Your task to perform on an android device: empty trash in the gmail app Image 0: 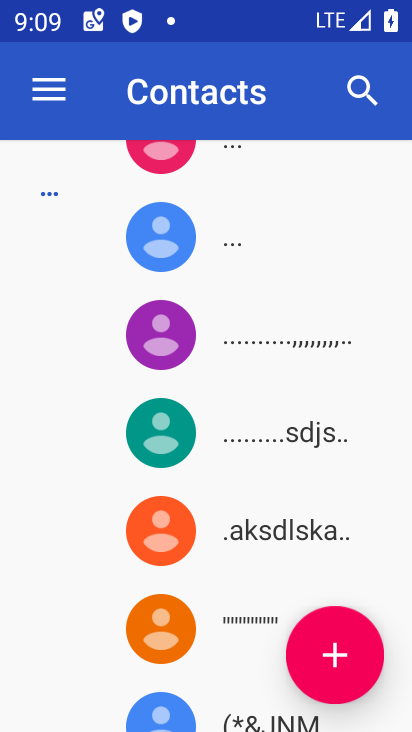
Step 0: press home button
Your task to perform on an android device: empty trash in the gmail app Image 1: 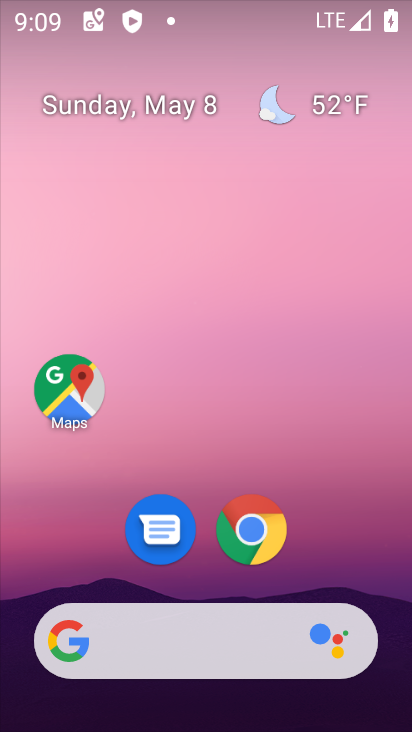
Step 1: drag from (375, 566) to (362, 139)
Your task to perform on an android device: empty trash in the gmail app Image 2: 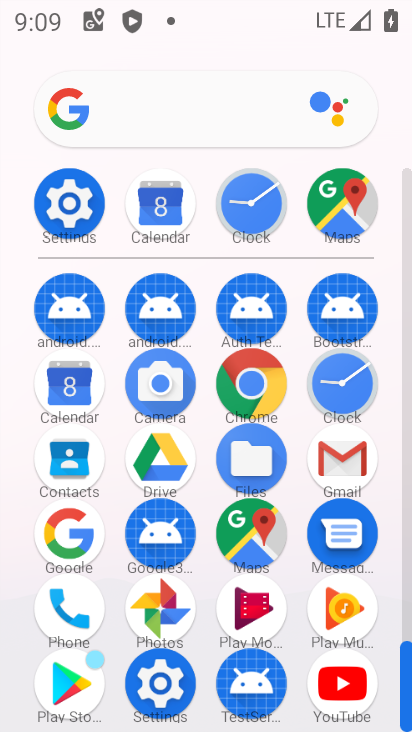
Step 2: click (362, 452)
Your task to perform on an android device: empty trash in the gmail app Image 3: 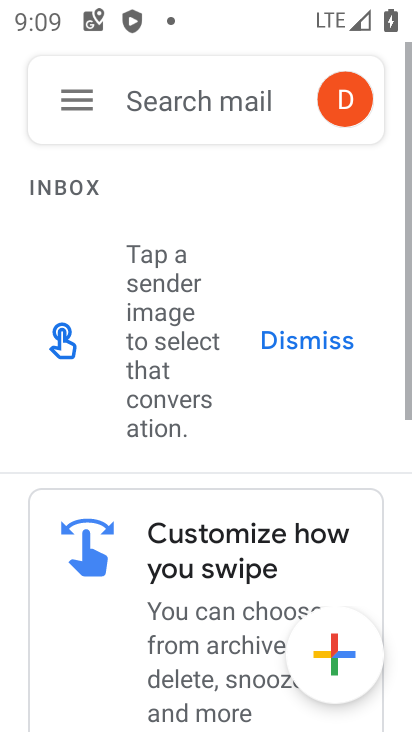
Step 3: drag from (385, 494) to (387, 197)
Your task to perform on an android device: empty trash in the gmail app Image 4: 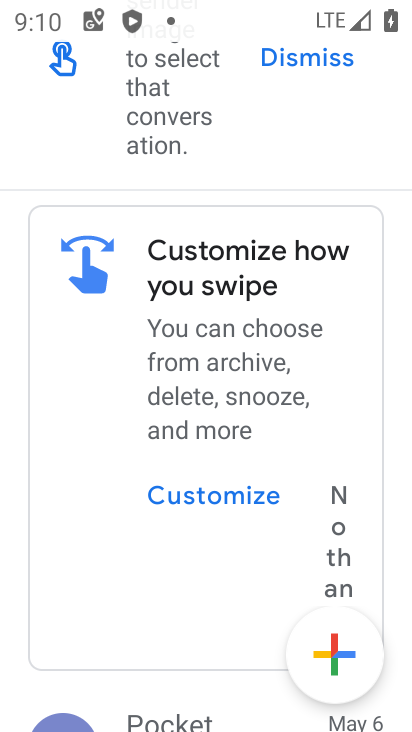
Step 4: drag from (394, 667) to (399, 370)
Your task to perform on an android device: empty trash in the gmail app Image 5: 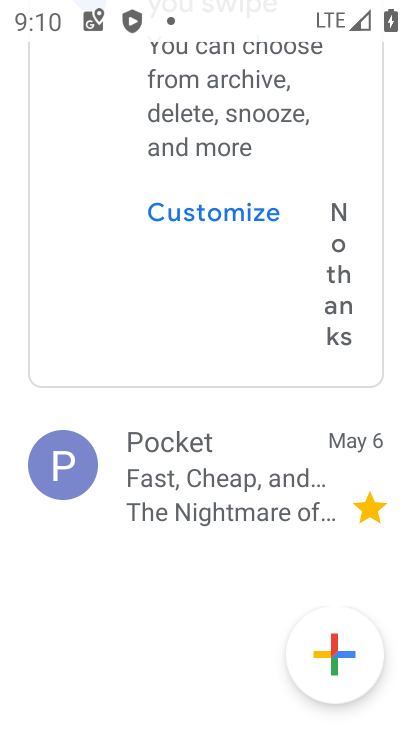
Step 5: drag from (11, 191) to (89, 626)
Your task to perform on an android device: empty trash in the gmail app Image 6: 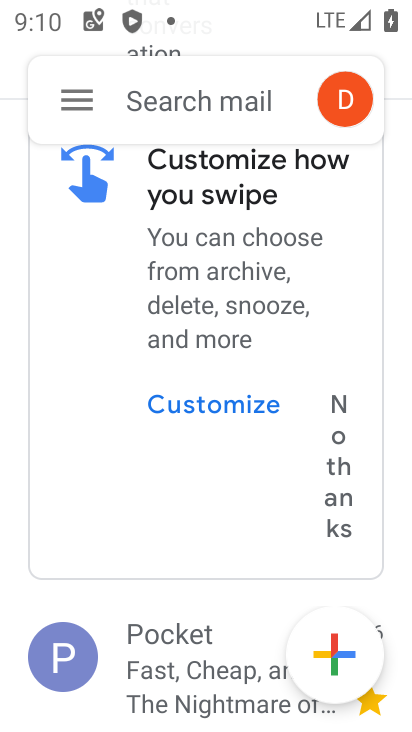
Step 6: click (81, 109)
Your task to perform on an android device: empty trash in the gmail app Image 7: 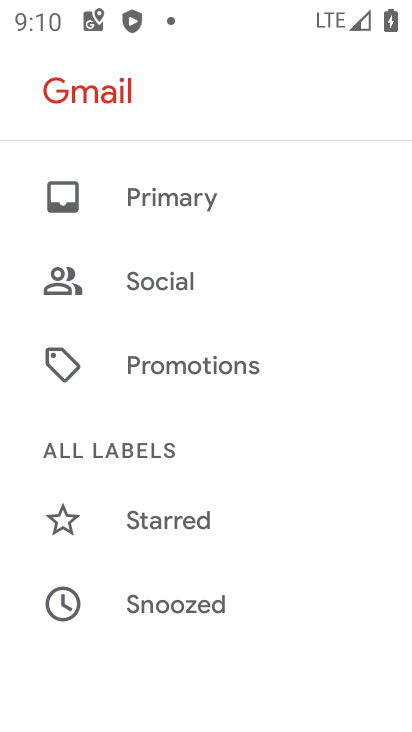
Step 7: drag from (238, 616) to (274, 240)
Your task to perform on an android device: empty trash in the gmail app Image 8: 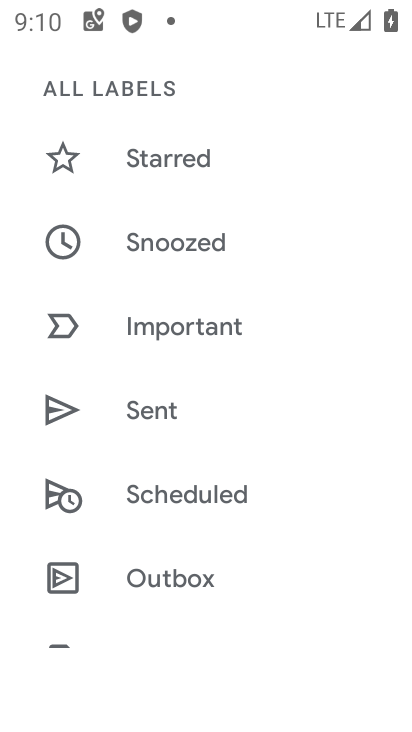
Step 8: drag from (240, 581) to (250, 265)
Your task to perform on an android device: empty trash in the gmail app Image 9: 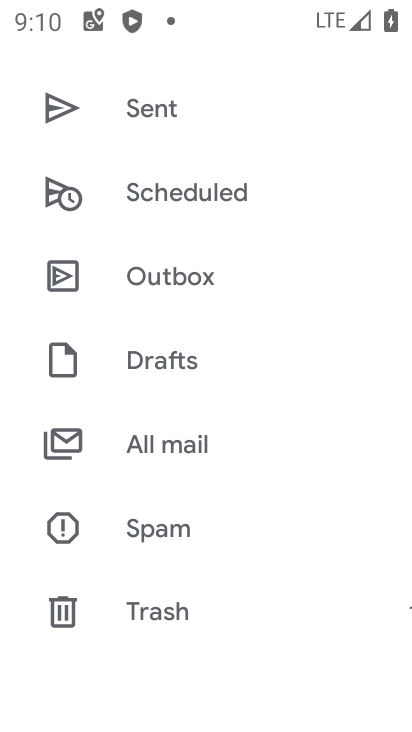
Step 9: click (176, 601)
Your task to perform on an android device: empty trash in the gmail app Image 10: 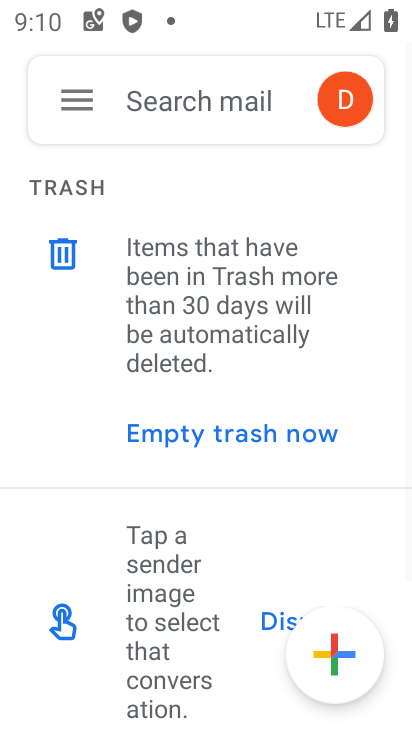
Step 10: drag from (241, 681) to (244, 261)
Your task to perform on an android device: empty trash in the gmail app Image 11: 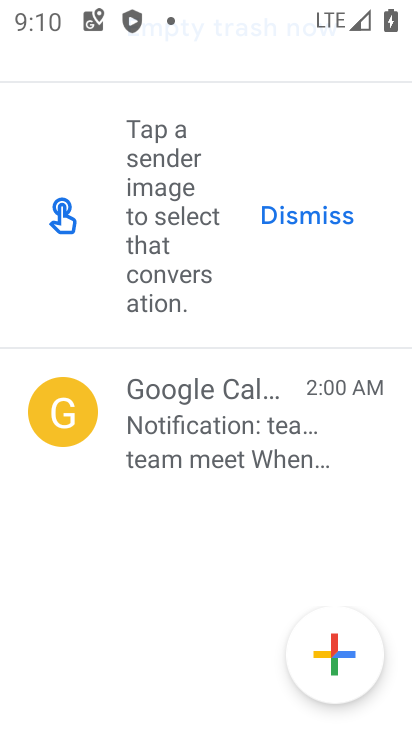
Step 11: drag from (208, 212) to (197, 566)
Your task to perform on an android device: empty trash in the gmail app Image 12: 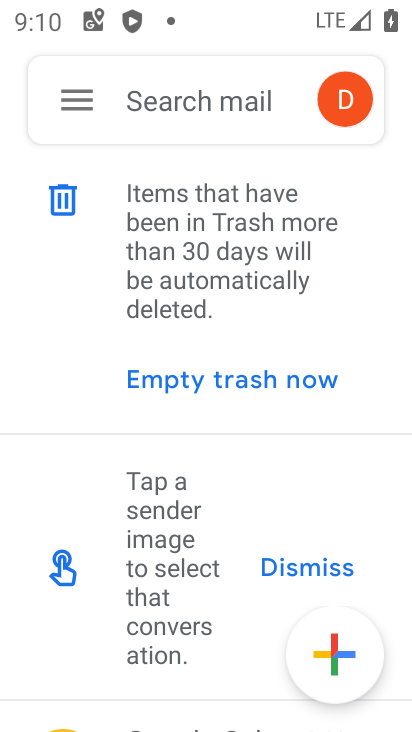
Step 12: click (221, 371)
Your task to perform on an android device: empty trash in the gmail app Image 13: 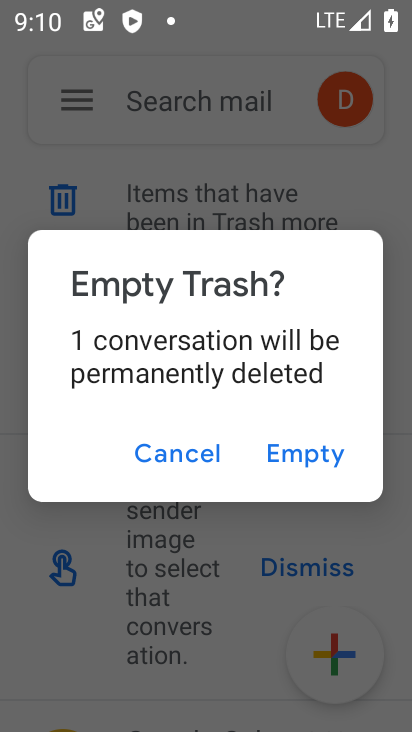
Step 13: click (310, 445)
Your task to perform on an android device: empty trash in the gmail app Image 14: 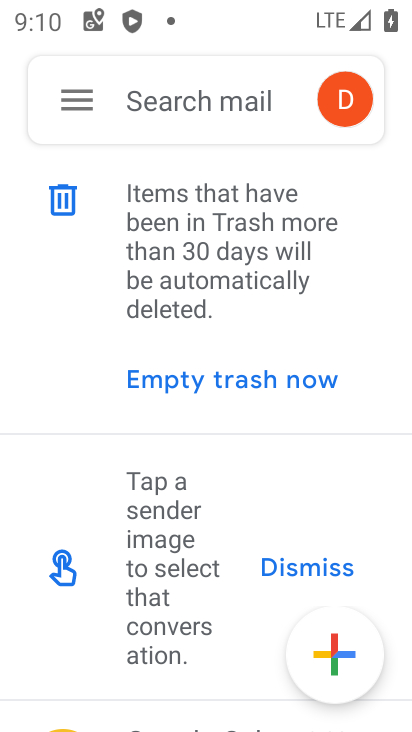
Step 14: task complete